Your task to perform on an android device: Go to calendar. Show me events next week Image 0: 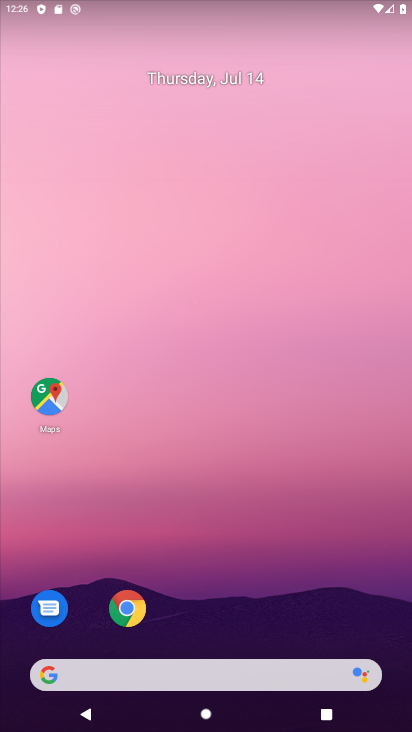
Step 0: drag from (198, 639) to (271, 211)
Your task to perform on an android device: Go to calendar. Show me events next week Image 1: 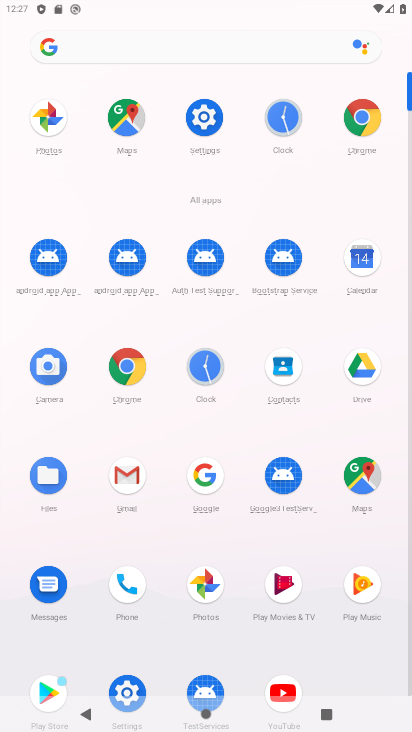
Step 1: click (369, 260)
Your task to perform on an android device: Go to calendar. Show me events next week Image 2: 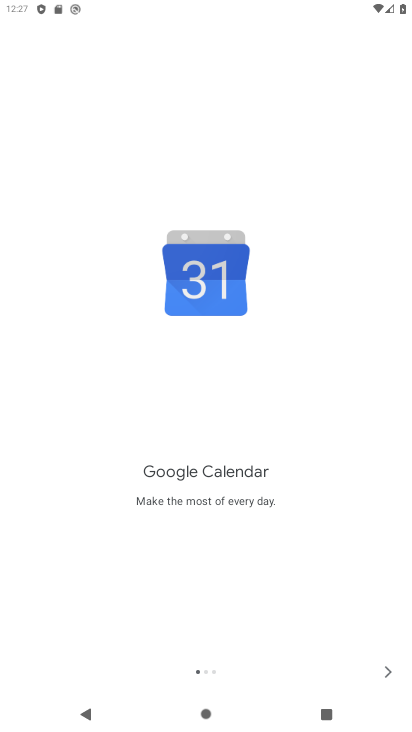
Step 2: drag from (204, 530) to (252, 181)
Your task to perform on an android device: Go to calendar. Show me events next week Image 3: 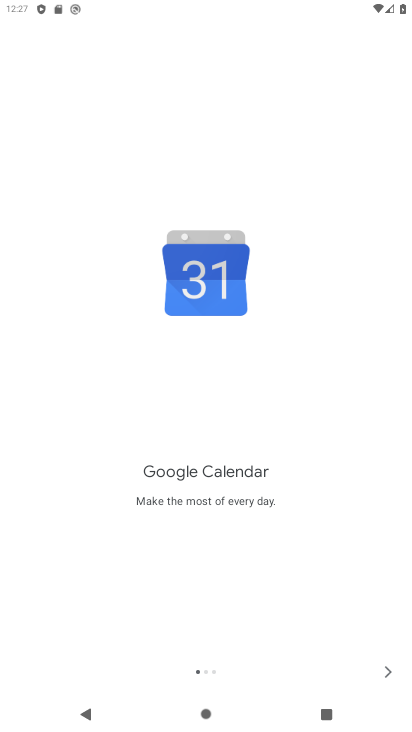
Step 3: drag from (202, 624) to (242, 458)
Your task to perform on an android device: Go to calendar. Show me events next week Image 4: 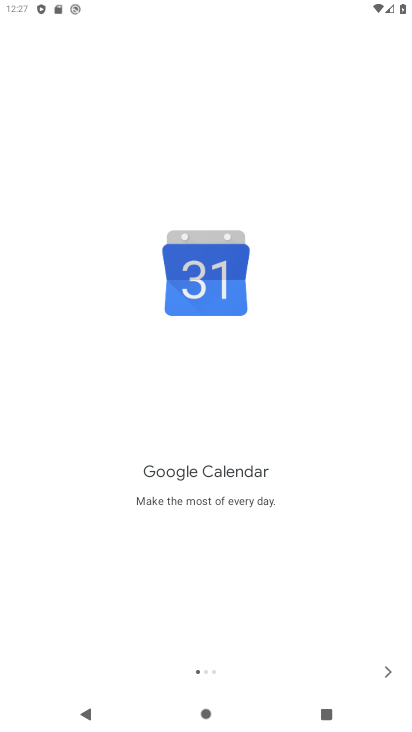
Step 4: click (382, 671)
Your task to perform on an android device: Go to calendar. Show me events next week Image 5: 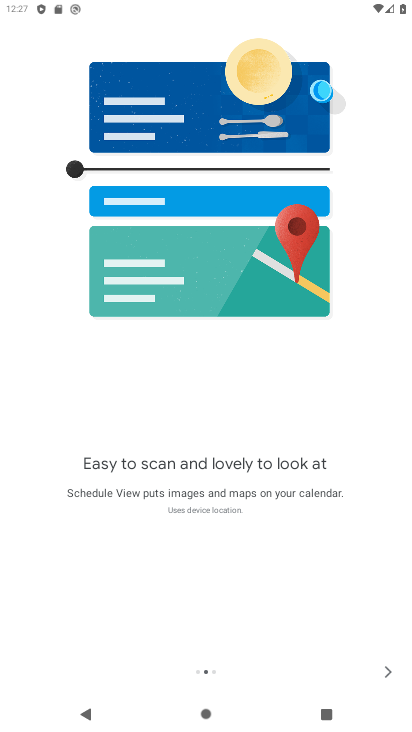
Step 5: click (385, 671)
Your task to perform on an android device: Go to calendar. Show me events next week Image 6: 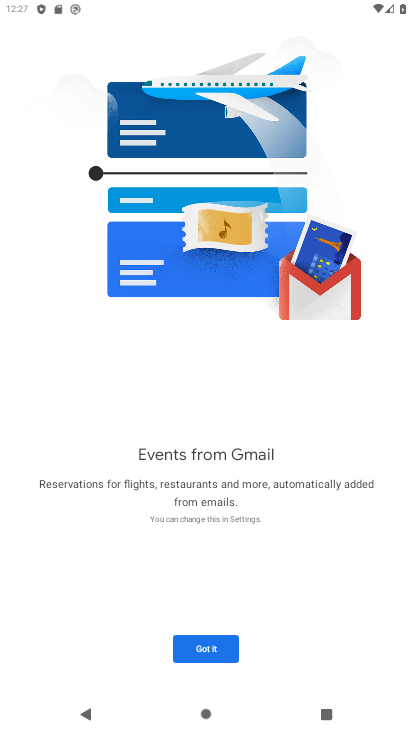
Step 6: click (205, 646)
Your task to perform on an android device: Go to calendar. Show me events next week Image 7: 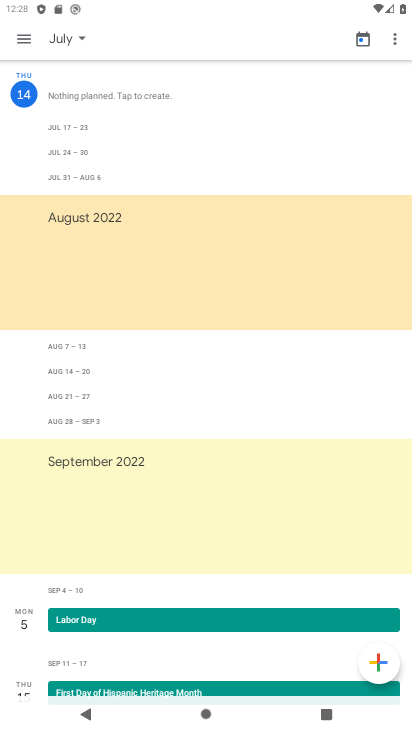
Step 7: drag from (212, 565) to (234, 392)
Your task to perform on an android device: Go to calendar. Show me events next week Image 8: 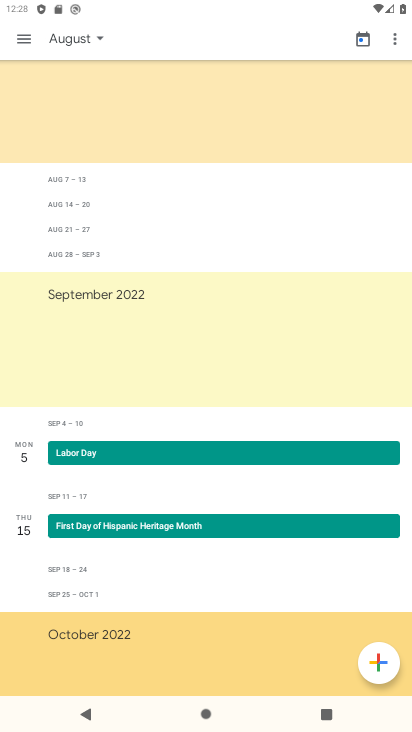
Step 8: click (70, 42)
Your task to perform on an android device: Go to calendar. Show me events next week Image 9: 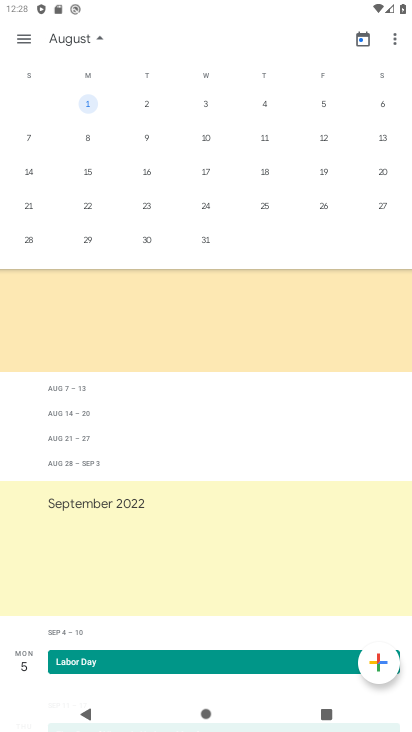
Step 9: drag from (74, 195) to (407, 159)
Your task to perform on an android device: Go to calendar. Show me events next week Image 10: 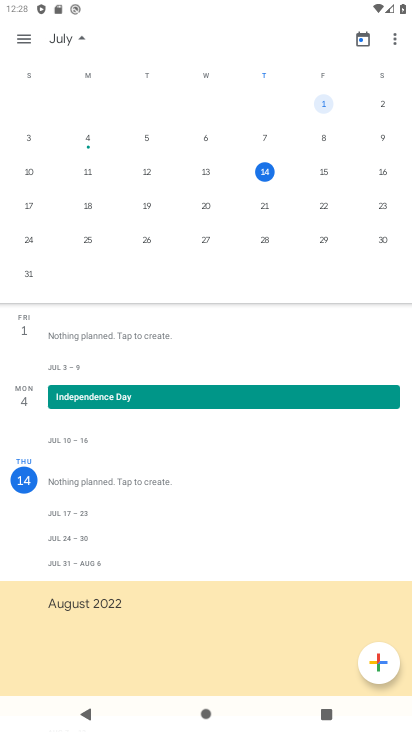
Step 10: click (383, 203)
Your task to perform on an android device: Go to calendar. Show me events next week Image 11: 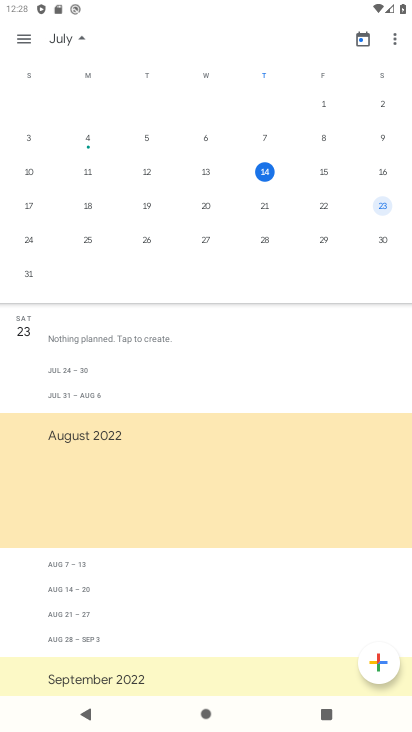
Step 11: task complete